Your task to perform on an android device: add a label to a message in the gmail app Image 0: 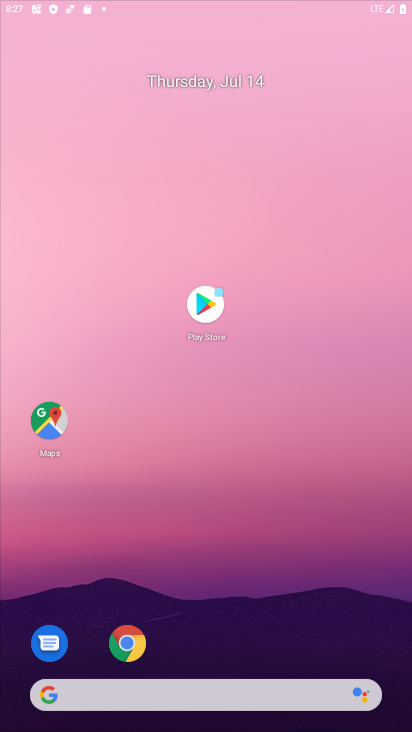
Step 0: click (311, 209)
Your task to perform on an android device: add a label to a message in the gmail app Image 1: 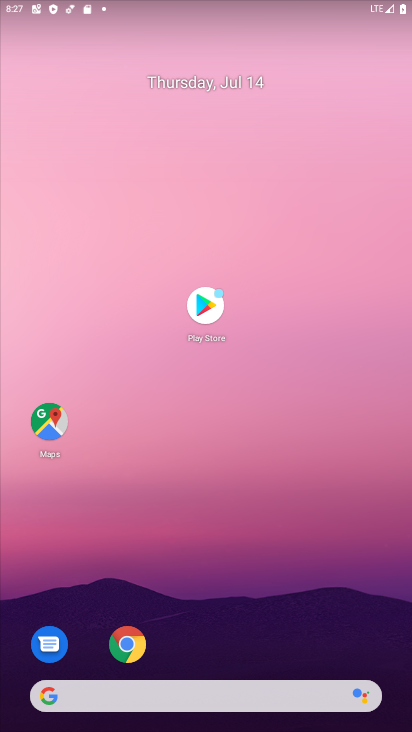
Step 1: drag from (176, 591) to (308, 134)
Your task to perform on an android device: add a label to a message in the gmail app Image 2: 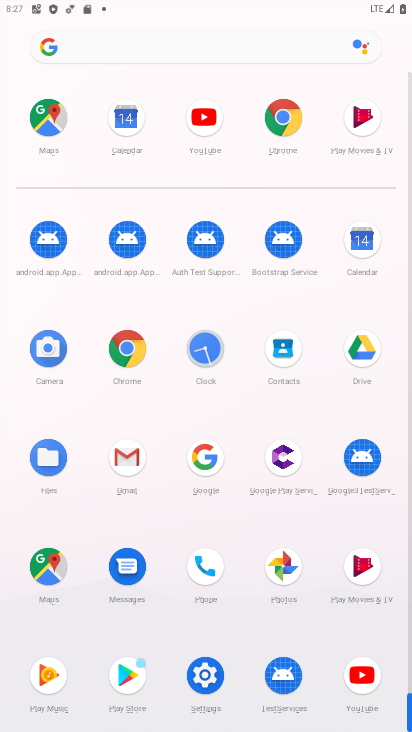
Step 2: click (131, 457)
Your task to perform on an android device: add a label to a message in the gmail app Image 3: 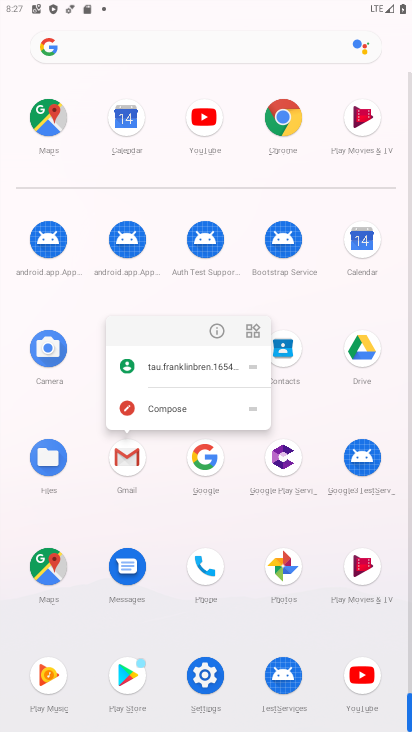
Step 3: click (215, 326)
Your task to perform on an android device: add a label to a message in the gmail app Image 4: 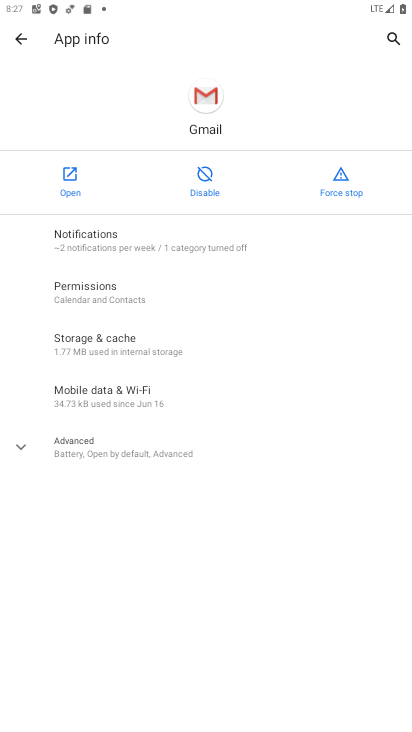
Step 4: click (69, 194)
Your task to perform on an android device: add a label to a message in the gmail app Image 5: 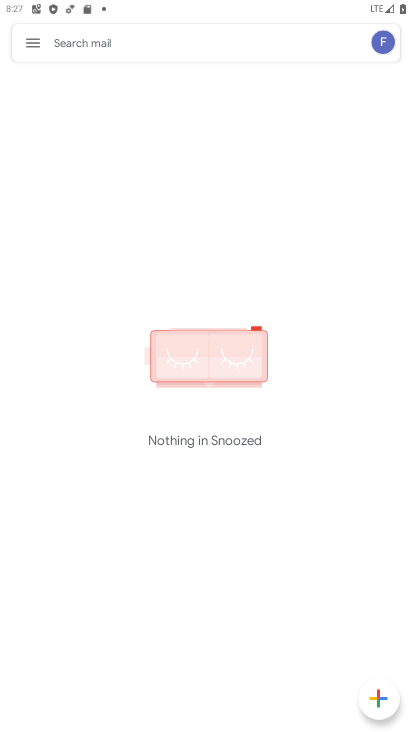
Step 5: drag from (131, 464) to (132, 279)
Your task to perform on an android device: add a label to a message in the gmail app Image 6: 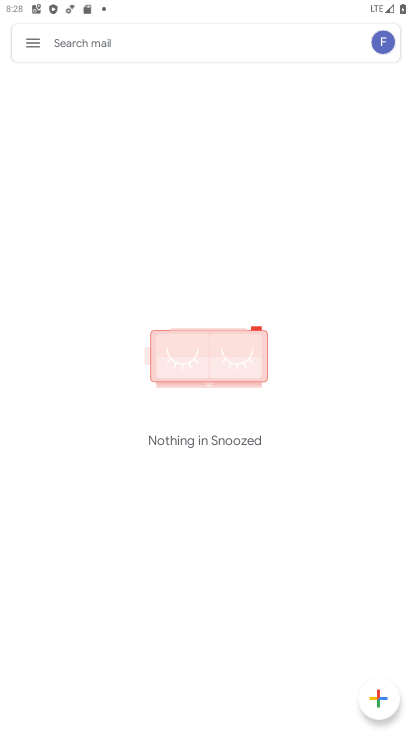
Step 6: click (27, 48)
Your task to perform on an android device: add a label to a message in the gmail app Image 7: 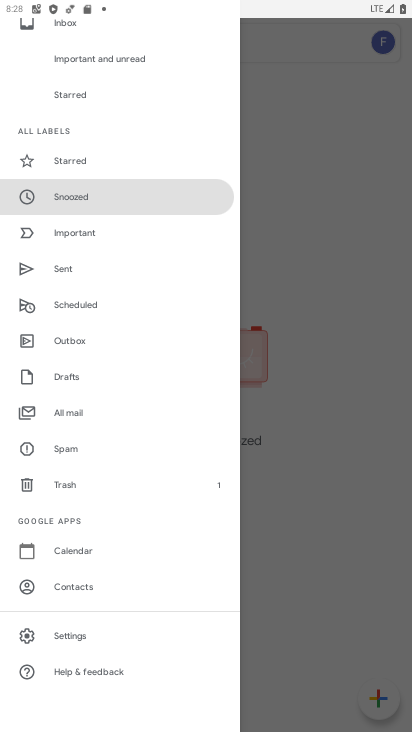
Step 7: drag from (100, 400) to (125, 182)
Your task to perform on an android device: add a label to a message in the gmail app Image 8: 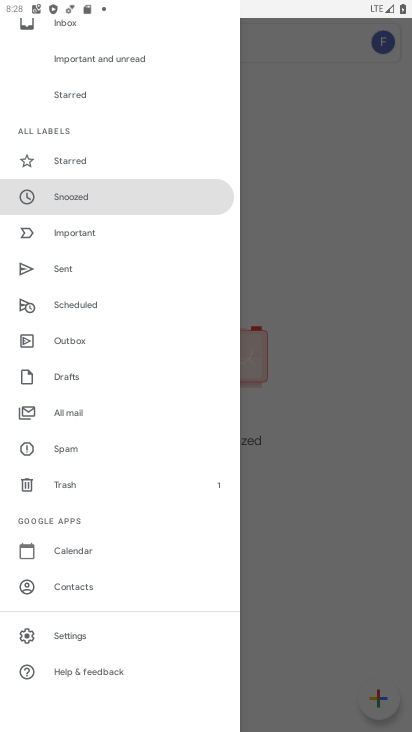
Step 8: drag from (121, 627) to (145, 394)
Your task to perform on an android device: add a label to a message in the gmail app Image 9: 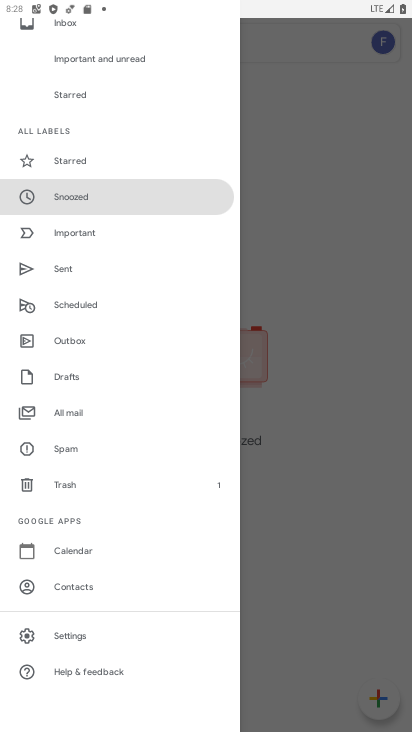
Step 9: click (329, 359)
Your task to perform on an android device: add a label to a message in the gmail app Image 10: 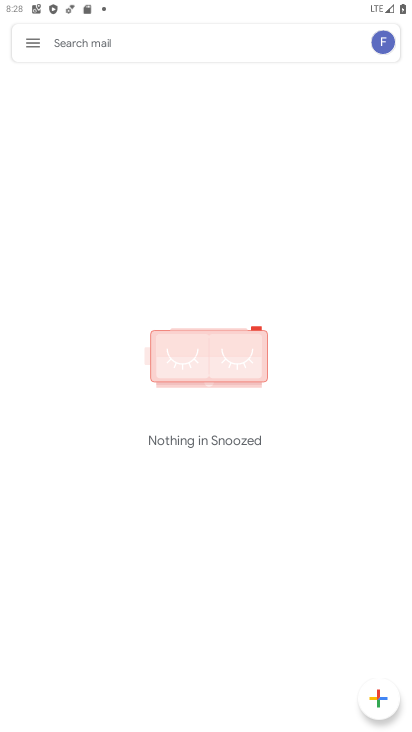
Step 10: task complete